Your task to perform on an android device: turn on javascript in the chrome app Image 0: 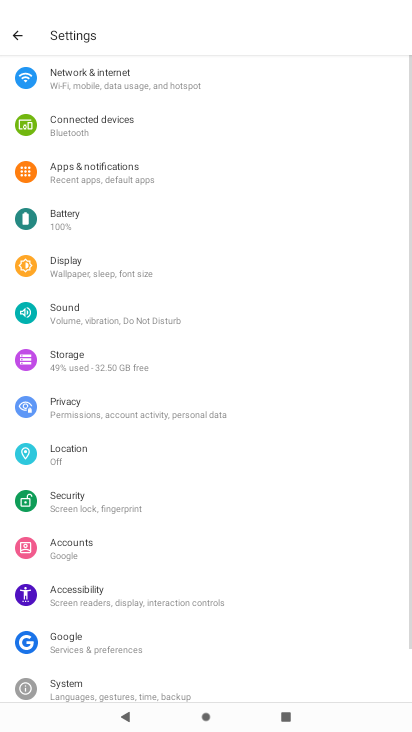
Step 0: press home button
Your task to perform on an android device: turn on javascript in the chrome app Image 1: 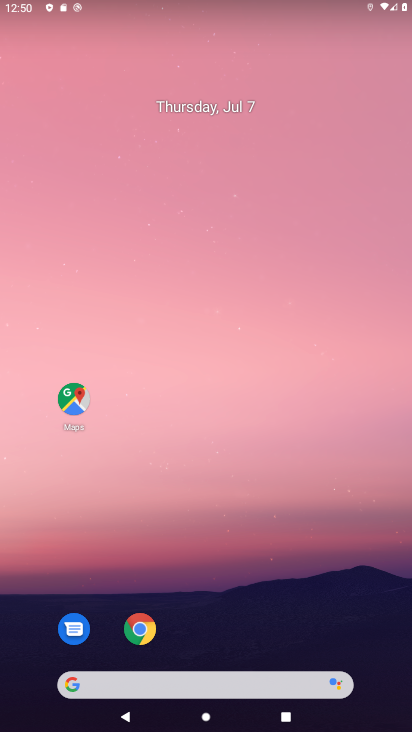
Step 1: click (145, 627)
Your task to perform on an android device: turn on javascript in the chrome app Image 2: 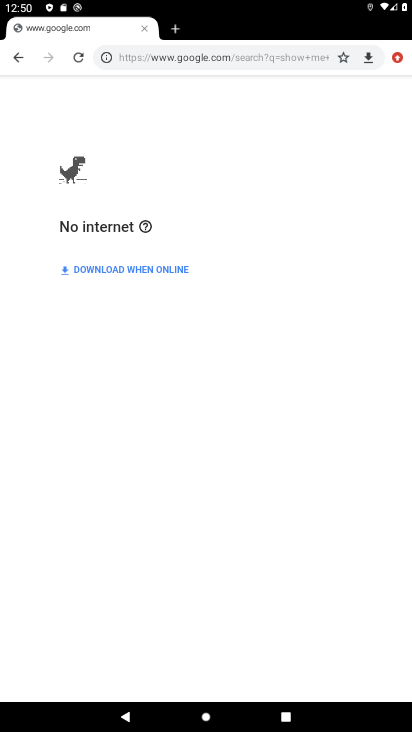
Step 2: click (397, 57)
Your task to perform on an android device: turn on javascript in the chrome app Image 3: 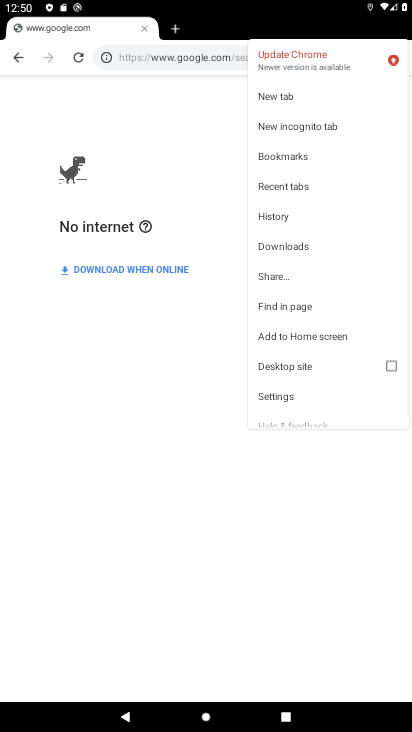
Step 3: click (288, 400)
Your task to perform on an android device: turn on javascript in the chrome app Image 4: 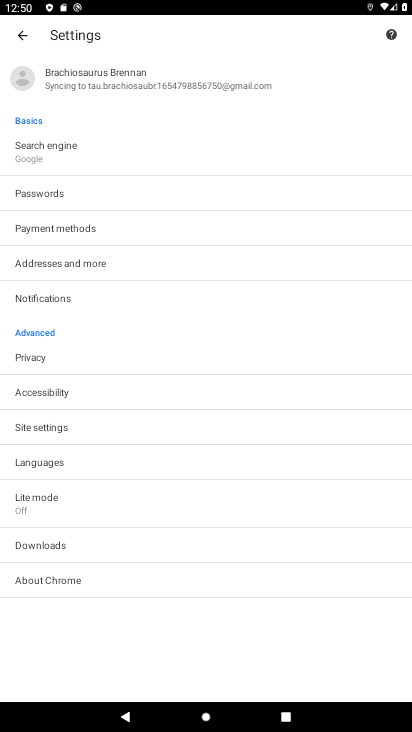
Step 4: click (54, 426)
Your task to perform on an android device: turn on javascript in the chrome app Image 5: 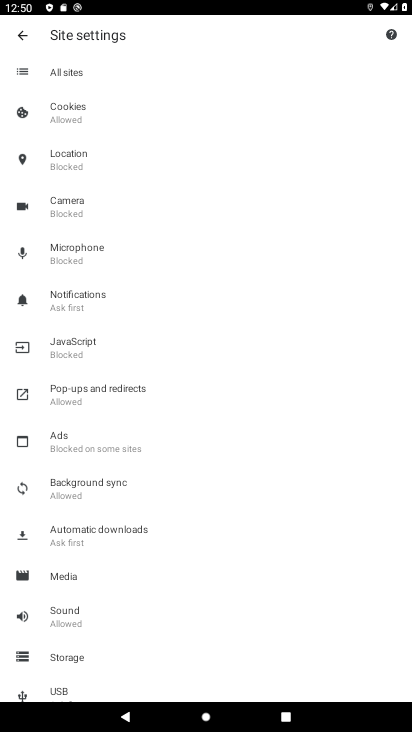
Step 5: click (74, 341)
Your task to perform on an android device: turn on javascript in the chrome app Image 6: 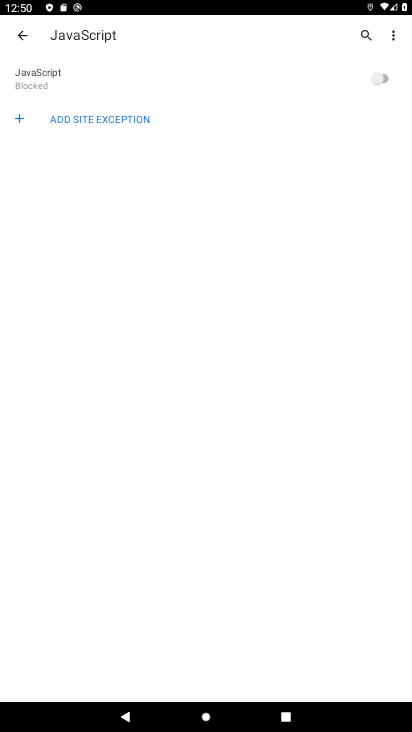
Step 6: click (384, 79)
Your task to perform on an android device: turn on javascript in the chrome app Image 7: 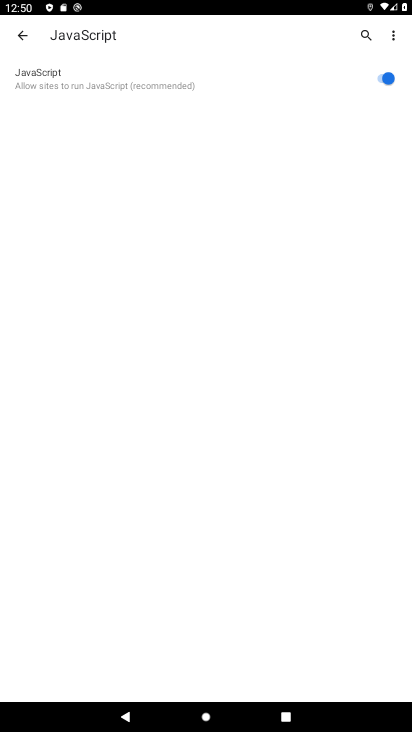
Step 7: task complete